Your task to perform on an android device: Check the news Image 0: 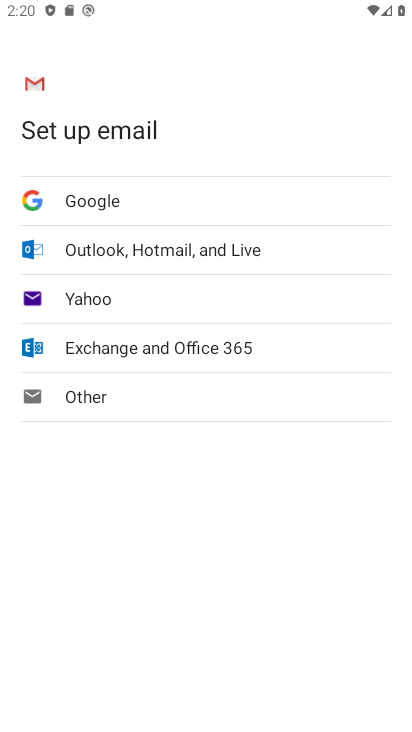
Step 0: press back button
Your task to perform on an android device: Check the news Image 1: 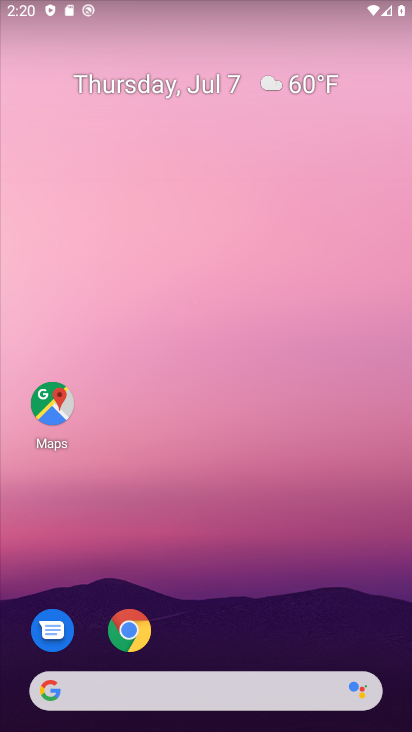
Step 1: task complete